Your task to perform on an android device: set default search engine in the chrome app Image 0: 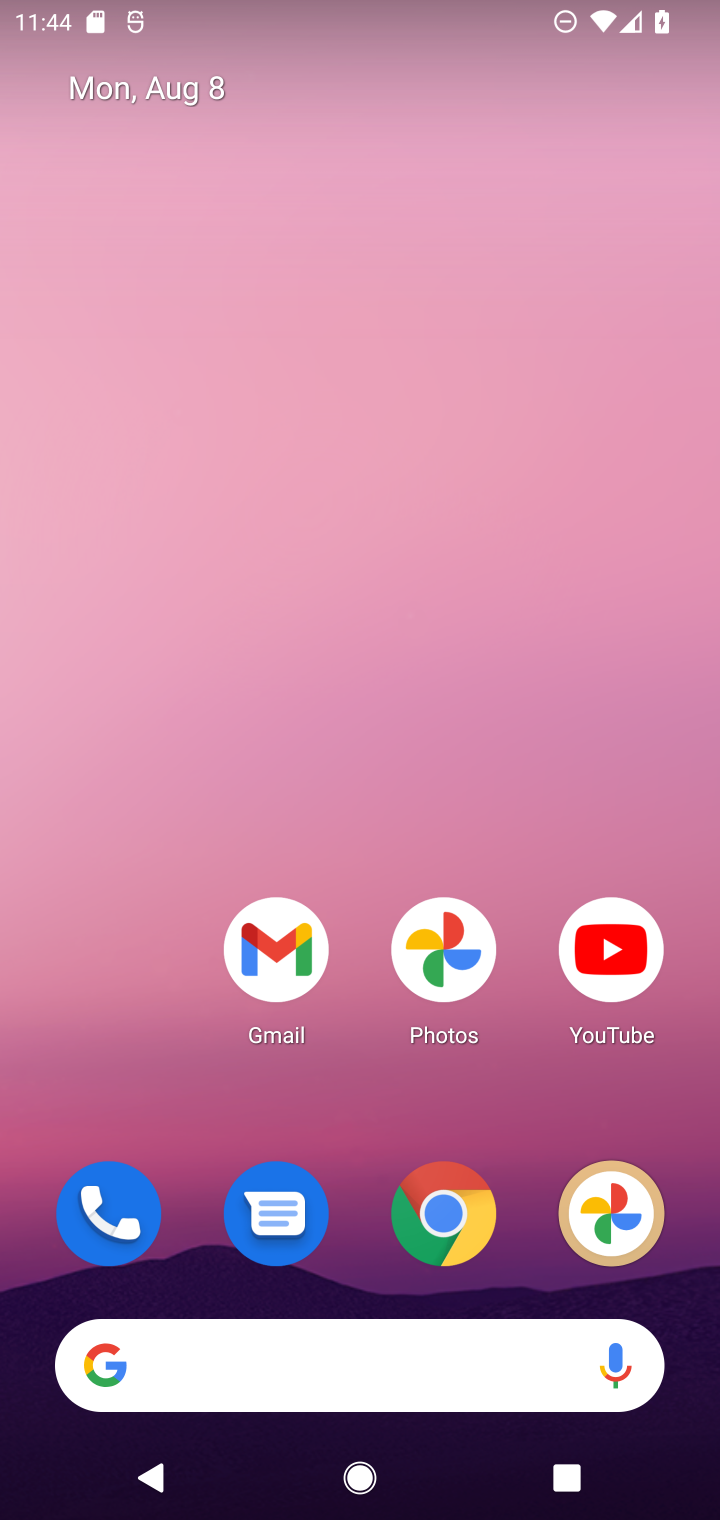
Step 0: press home button
Your task to perform on an android device: set default search engine in the chrome app Image 1: 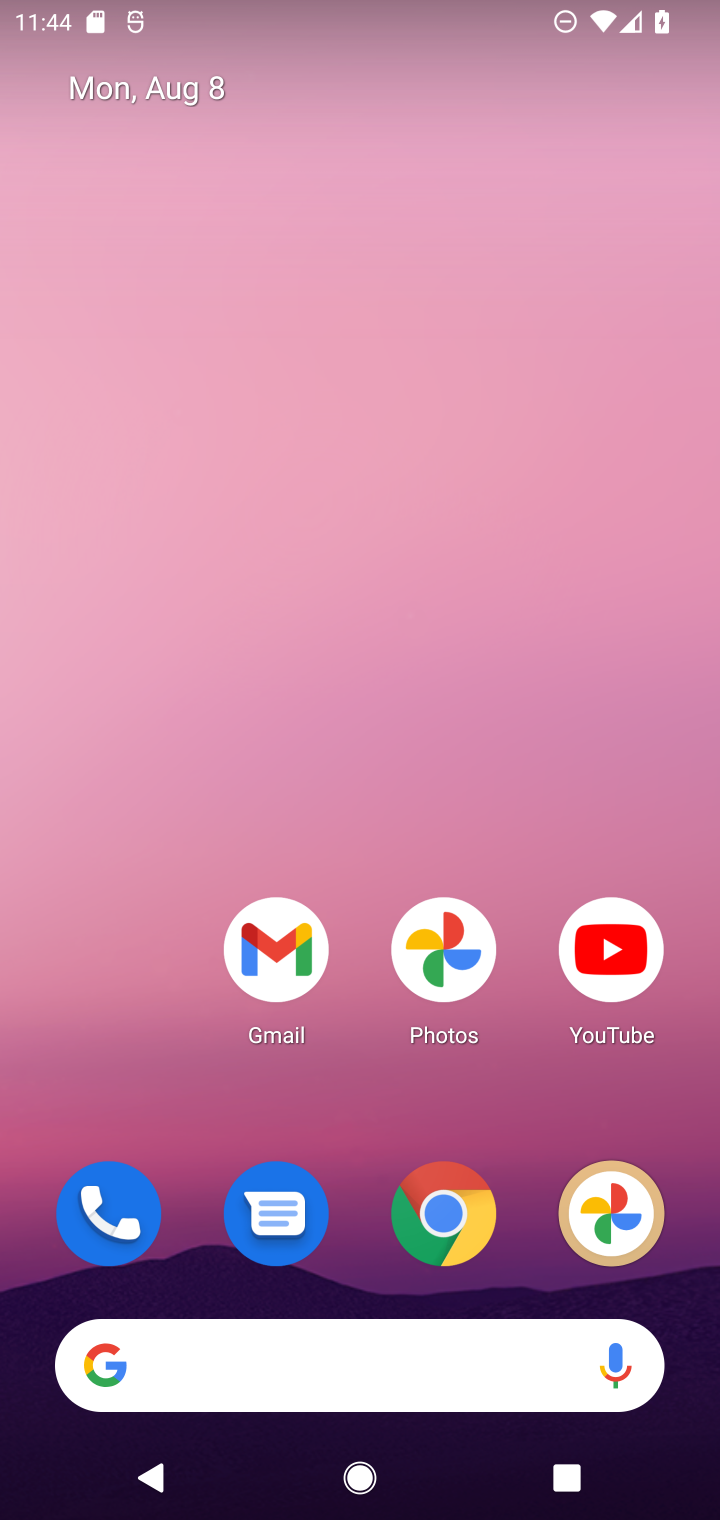
Step 1: click (442, 1203)
Your task to perform on an android device: set default search engine in the chrome app Image 2: 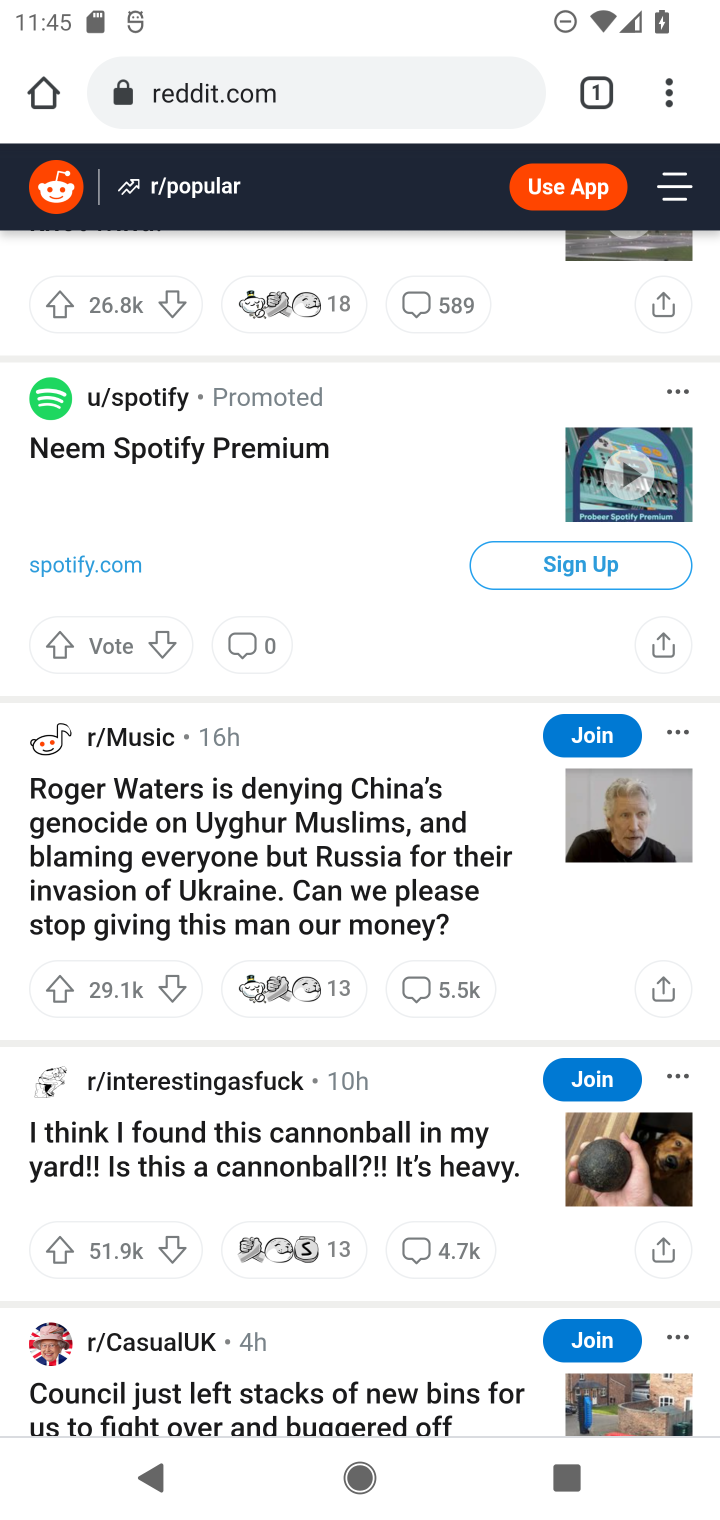
Step 2: click (664, 80)
Your task to perform on an android device: set default search engine in the chrome app Image 3: 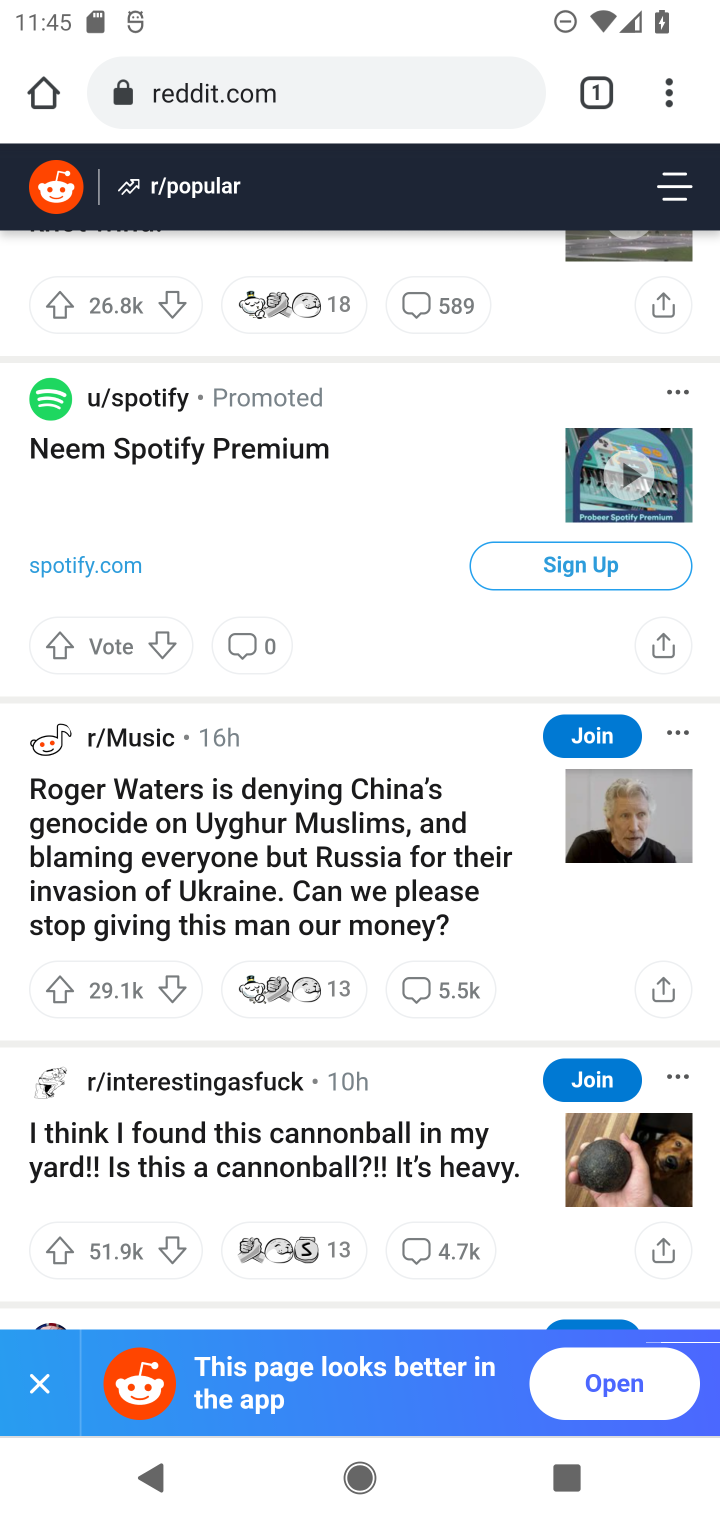
Step 3: click (666, 109)
Your task to perform on an android device: set default search engine in the chrome app Image 4: 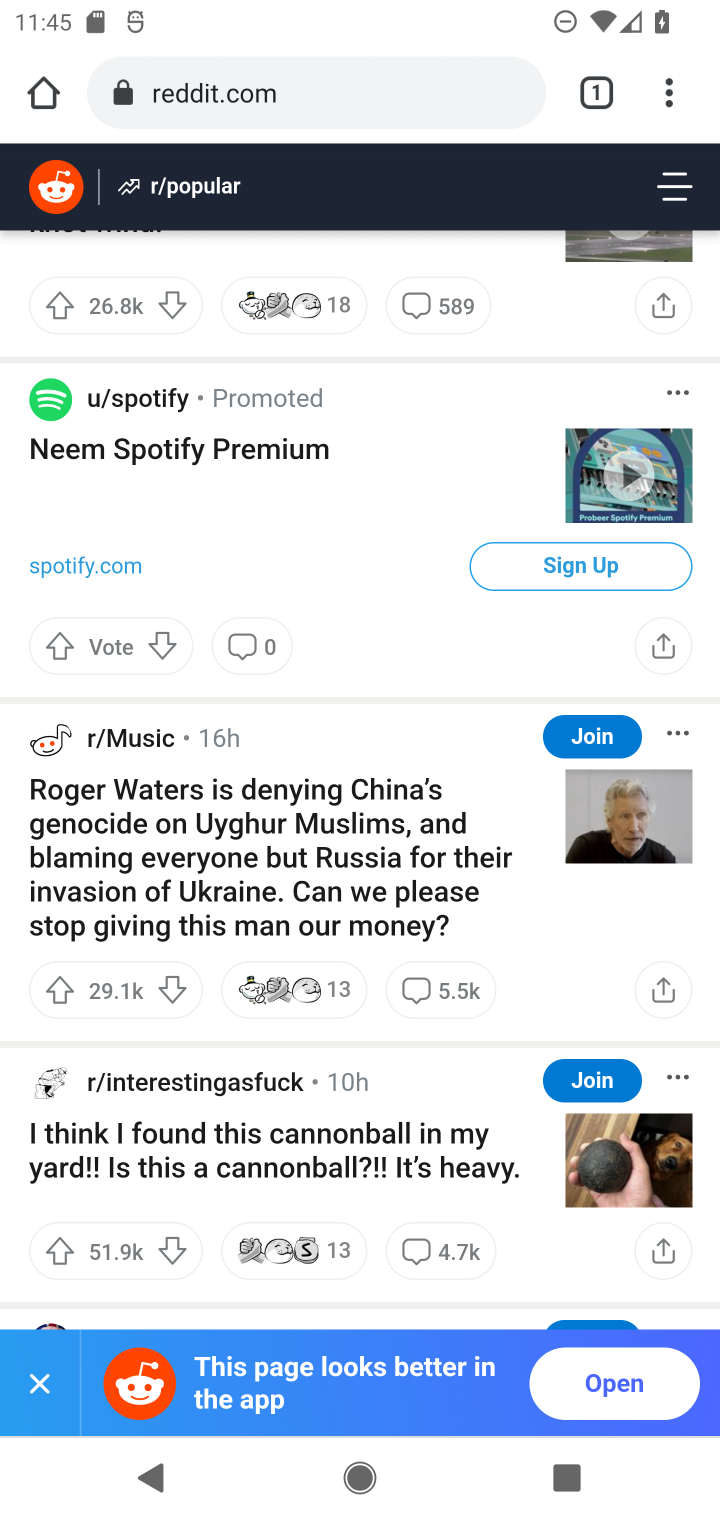
Step 4: click (663, 92)
Your task to perform on an android device: set default search engine in the chrome app Image 5: 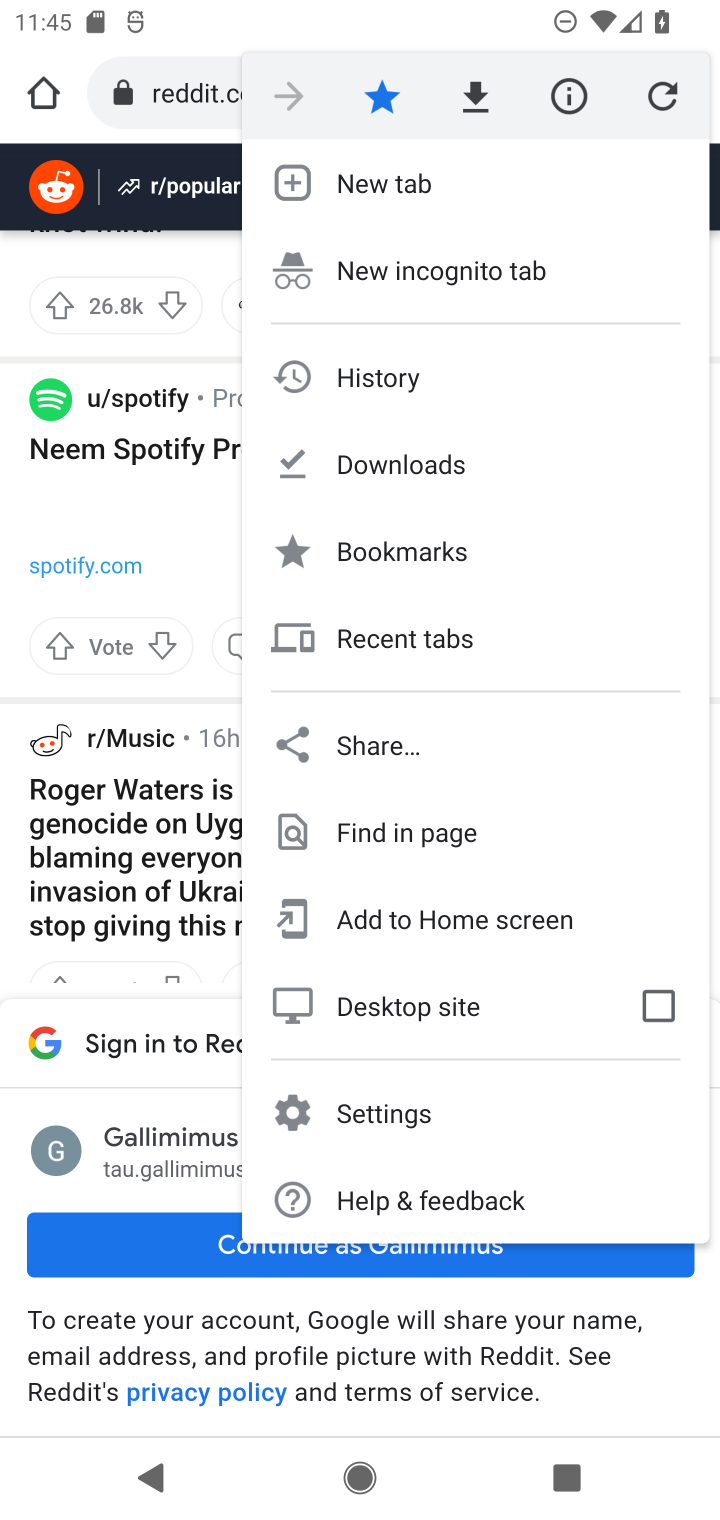
Step 5: click (430, 1120)
Your task to perform on an android device: set default search engine in the chrome app Image 6: 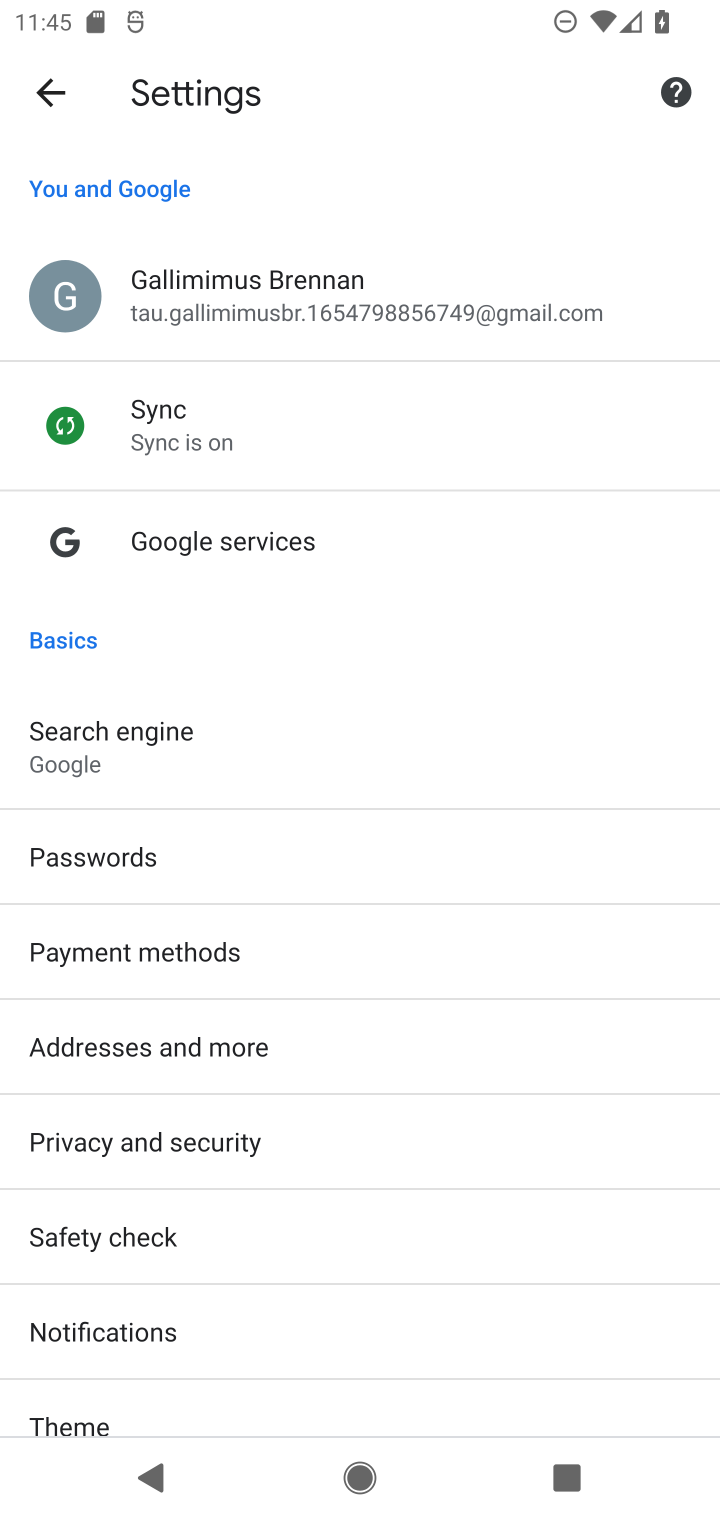
Step 6: click (164, 761)
Your task to perform on an android device: set default search engine in the chrome app Image 7: 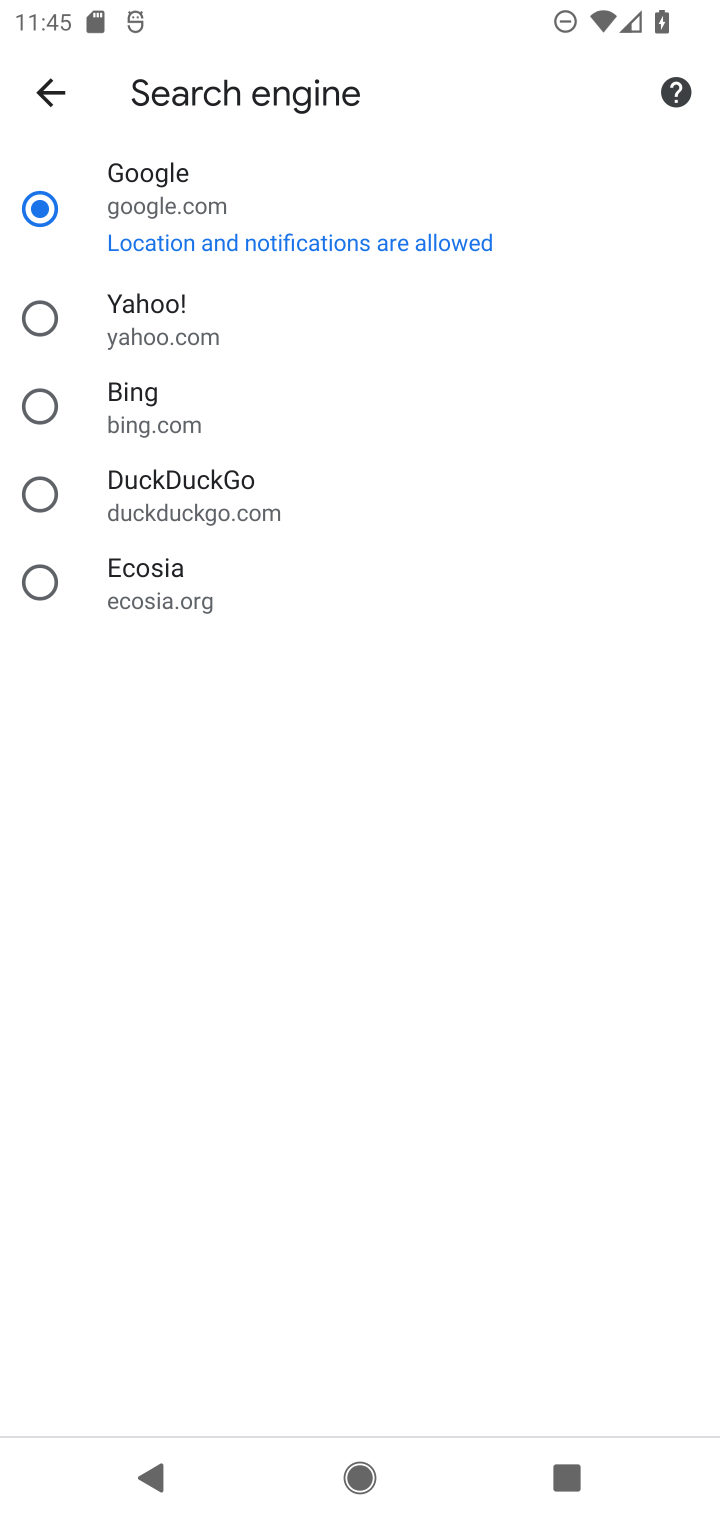
Step 7: click (36, 403)
Your task to perform on an android device: set default search engine in the chrome app Image 8: 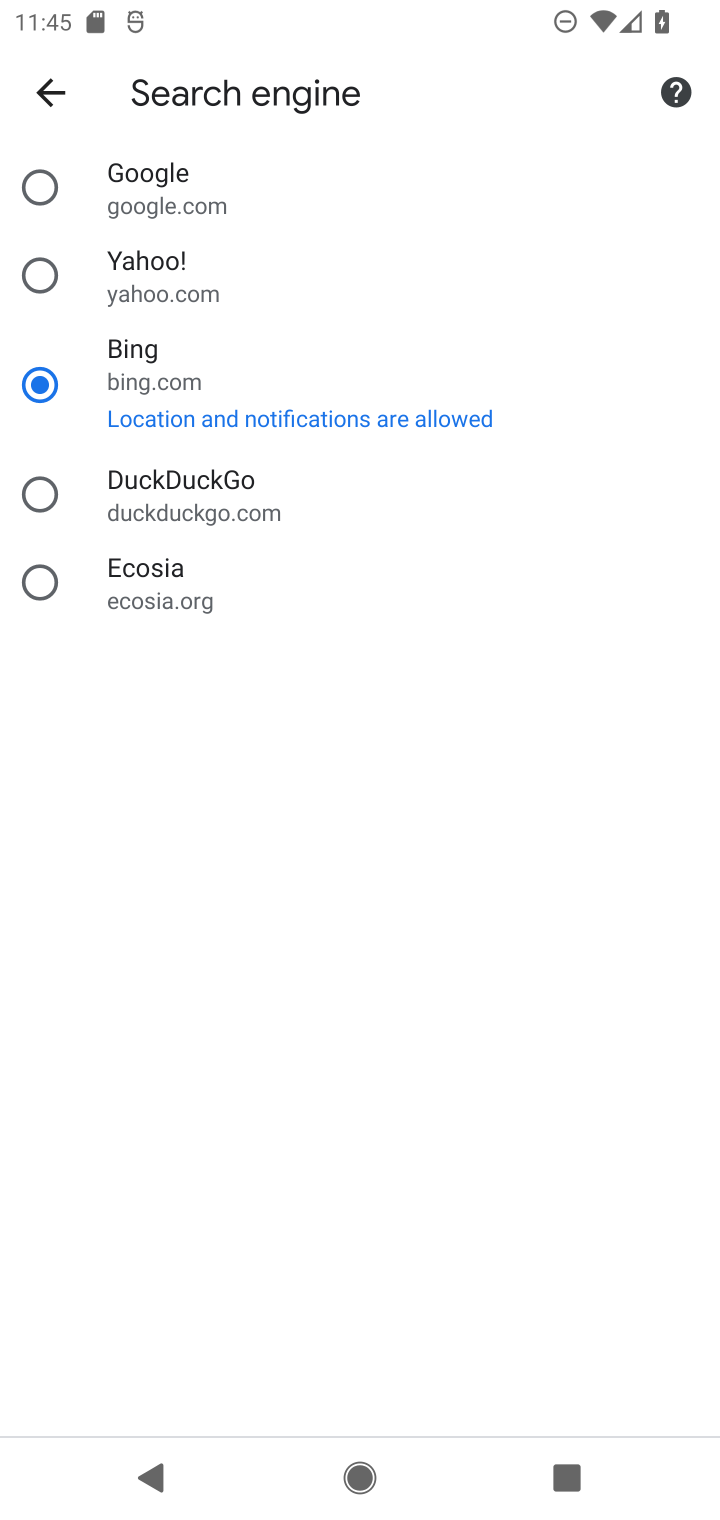
Step 8: task complete